Your task to perform on an android device: Go to calendar. Show me events next week Image 0: 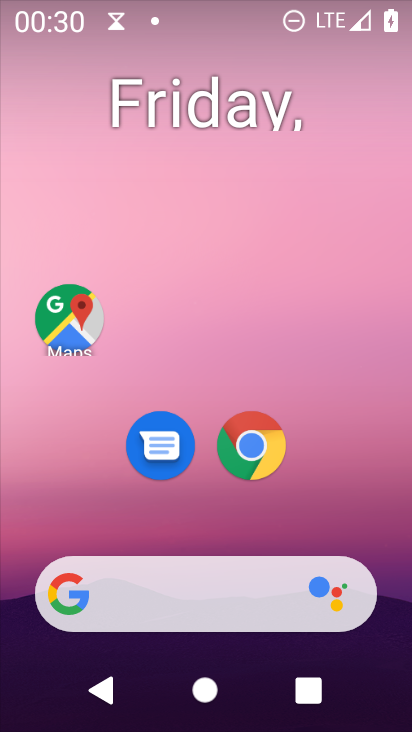
Step 0: drag from (232, 715) to (226, 139)
Your task to perform on an android device: Go to calendar. Show me events next week Image 1: 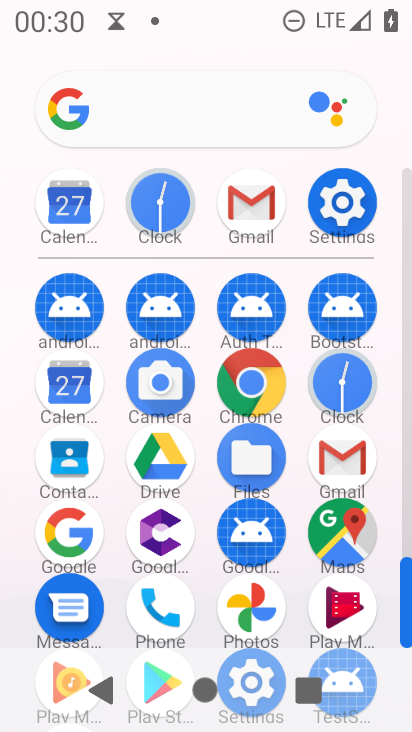
Step 1: click (72, 389)
Your task to perform on an android device: Go to calendar. Show me events next week Image 2: 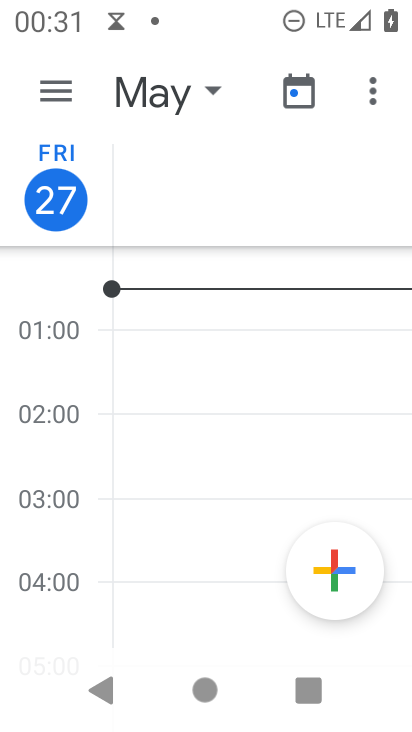
Step 2: click (205, 83)
Your task to perform on an android device: Go to calendar. Show me events next week Image 3: 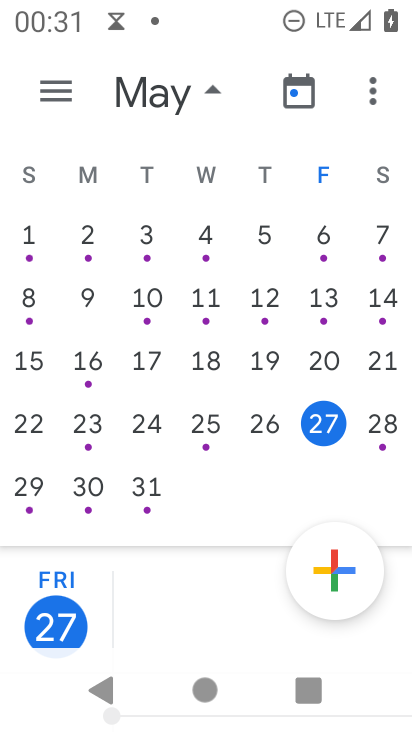
Step 3: click (83, 483)
Your task to perform on an android device: Go to calendar. Show me events next week Image 4: 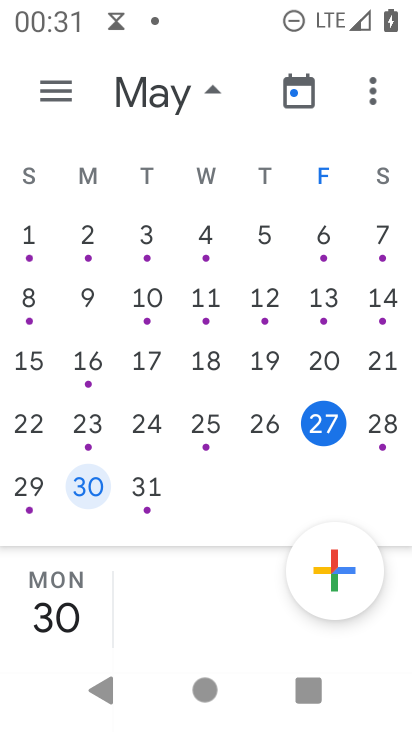
Step 4: click (60, 89)
Your task to perform on an android device: Go to calendar. Show me events next week Image 5: 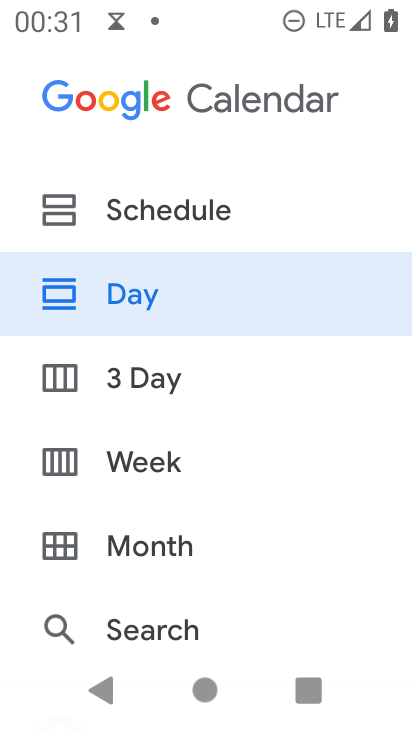
Step 5: click (148, 457)
Your task to perform on an android device: Go to calendar. Show me events next week Image 6: 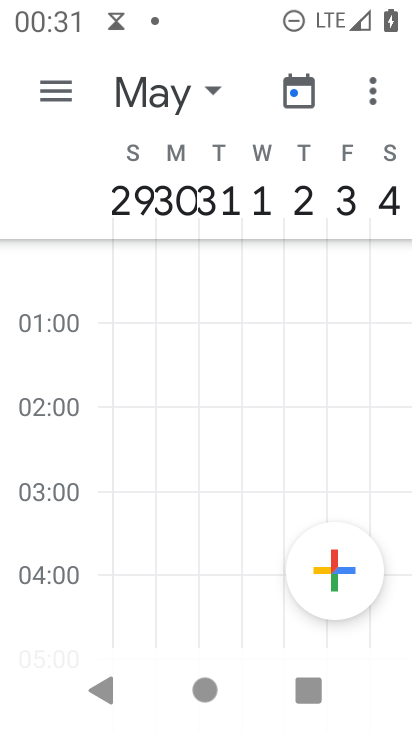
Step 6: task complete